Your task to perform on an android device: change your default location settings in chrome Image 0: 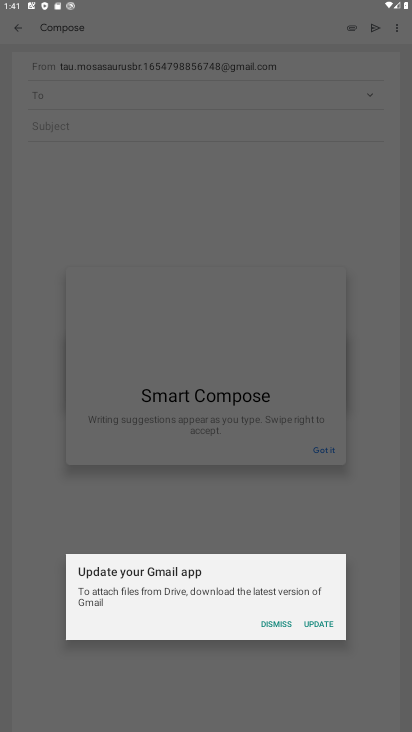
Step 0: press home button
Your task to perform on an android device: change your default location settings in chrome Image 1: 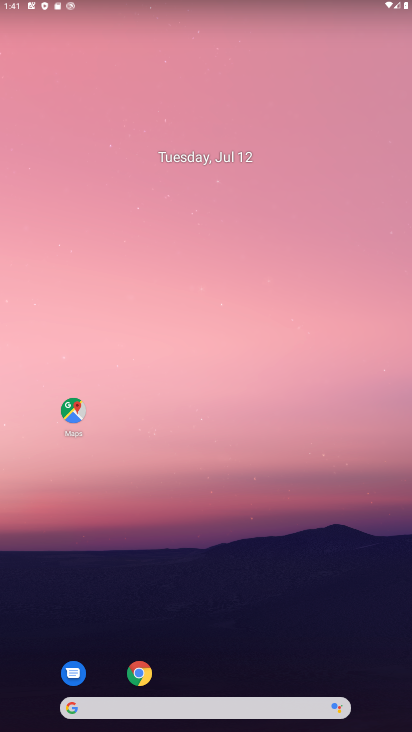
Step 1: drag from (202, 687) to (166, 321)
Your task to perform on an android device: change your default location settings in chrome Image 2: 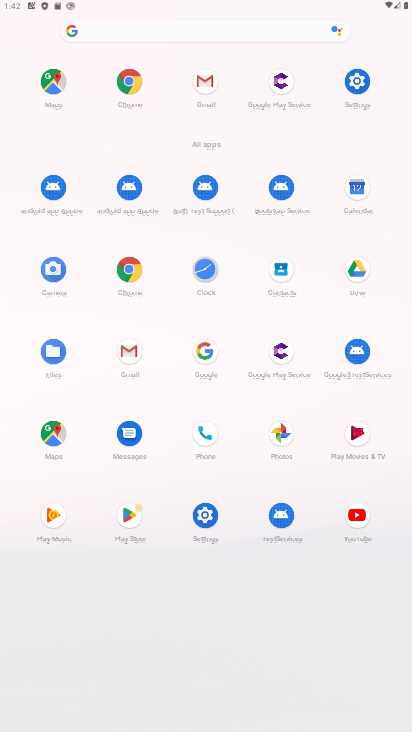
Step 2: click (129, 272)
Your task to perform on an android device: change your default location settings in chrome Image 3: 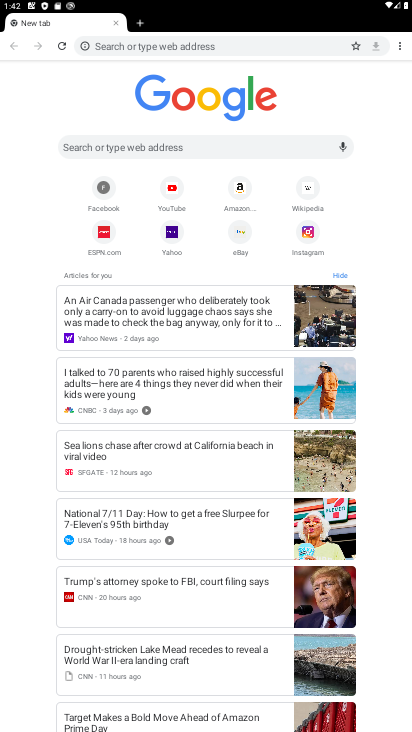
Step 3: click (398, 49)
Your task to perform on an android device: change your default location settings in chrome Image 4: 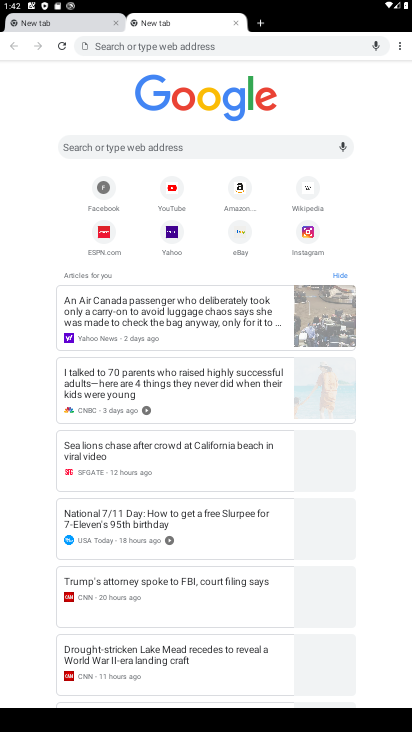
Step 4: click (398, 49)
Your task to perform on an android device: change your default location settings in chrome Image 5: 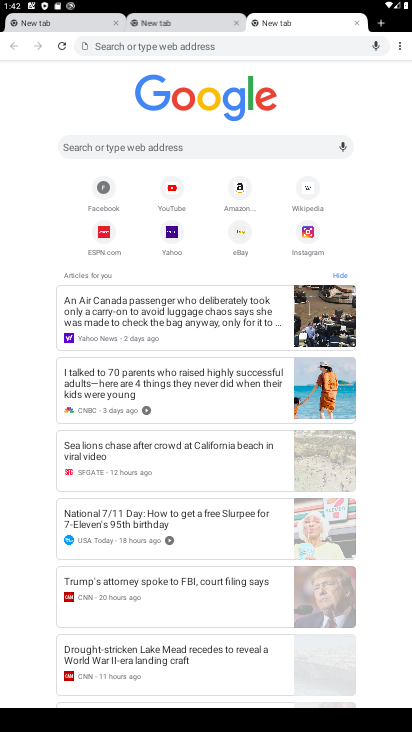
Step 5: click (398, 49)
Your task to perform on an android device: change your default location settings in chrome Image 6: 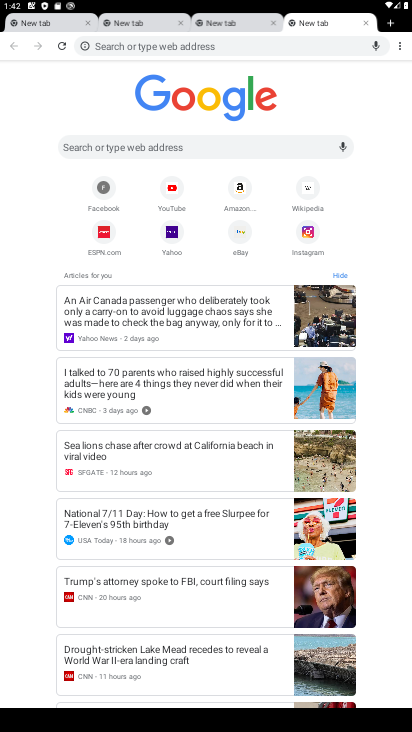
Step 6: click (398, 49)
Your task to perform on an android device: change your default location settings in chrome Image 7: 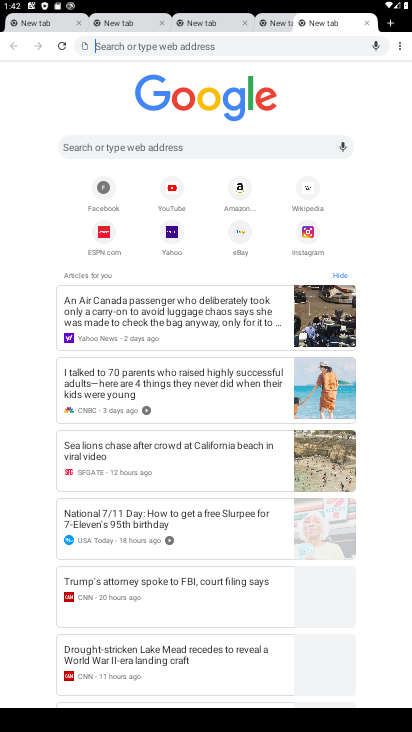
Step 7: click (400, 45)
Your task to perform on an android device: change your default location settings in chrome Image 8: 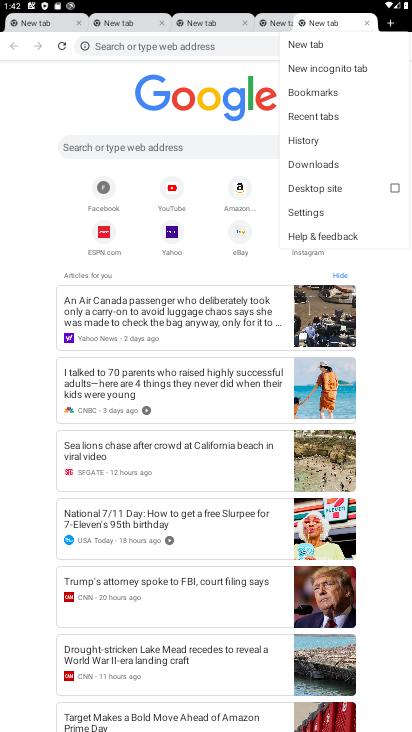
Step 8: click (289, 206)
Your task to perform on an android device: change your default location settings in chrome Image 9: 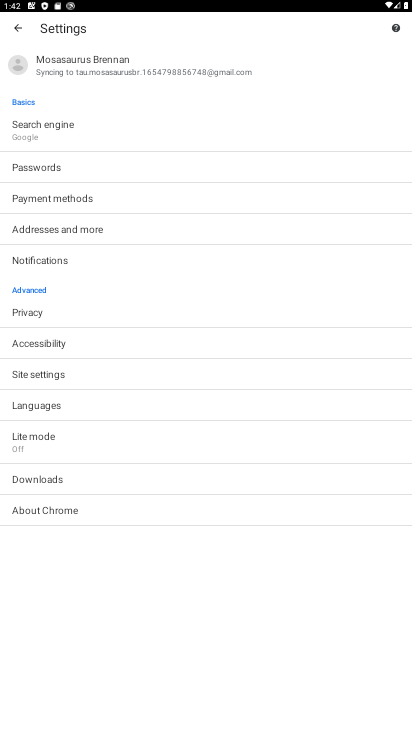
Step 9: click (29, 372)
Your task to perform on an android device: change your default location settings in chrome Image 10: 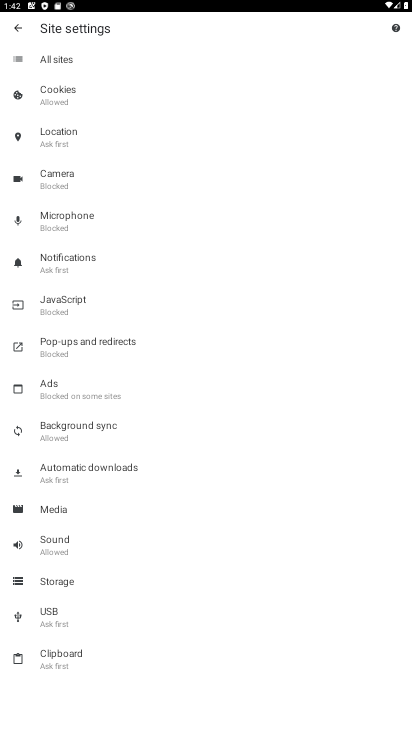
Step 10: click (69, 141)
Your task to perform on an android device: change your default location settings in chrome Image 11: 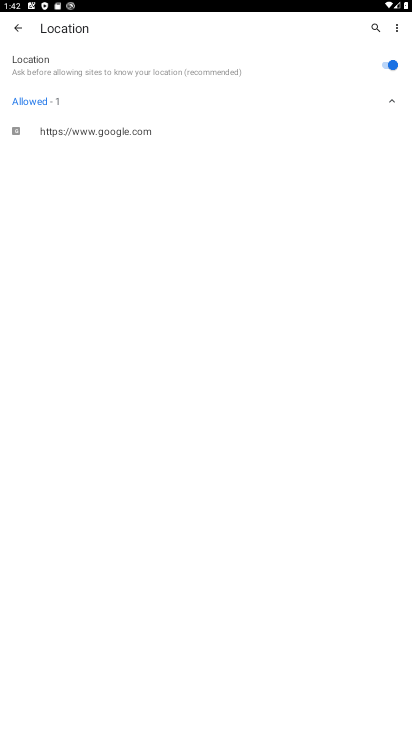
Step 11: click (386, 65)
Your task to perform on an android device: change your default location settings in chrome Image 12: 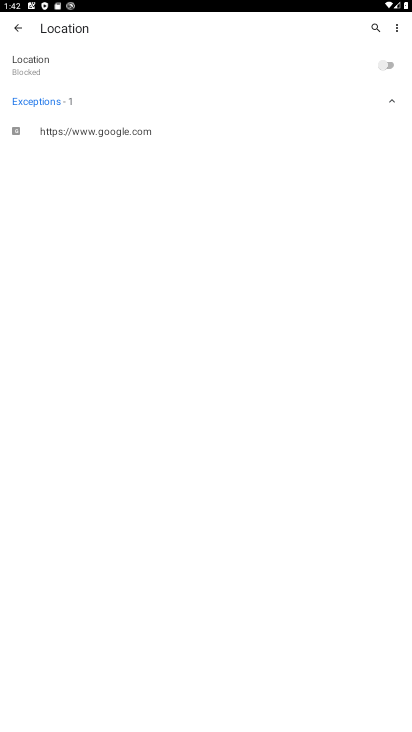
Step 12: task complete